Your task to perform on an android device: Go to Reddit.com Image 0: 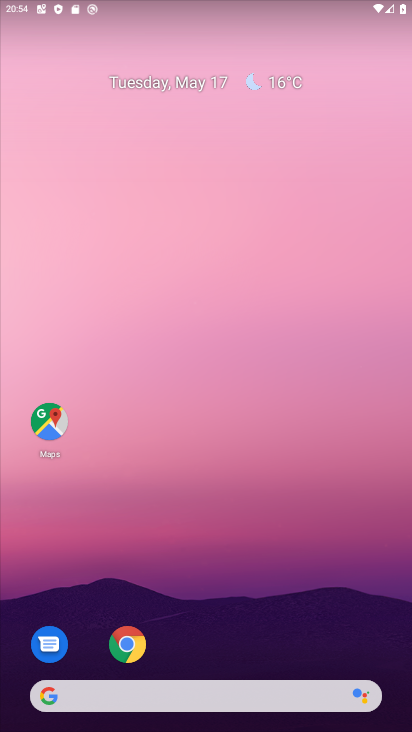
Step 0: click (116, 648)
Your task to perform on an android device: Go to Reddit.com Image 1: 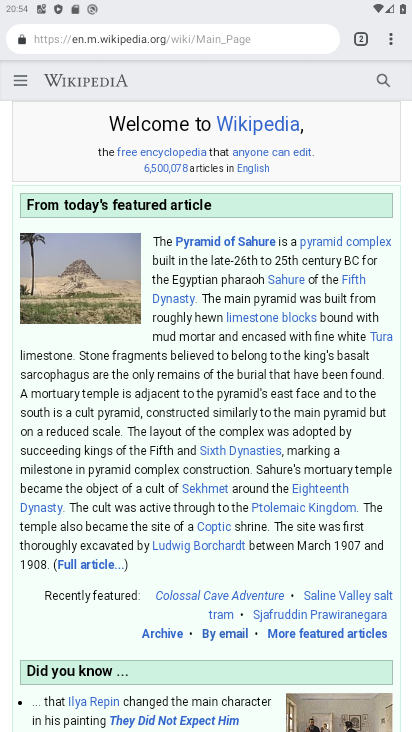
Step 1: click (368, 26)
Your task to perform on an android device: Go to Reddit.com Image 2: 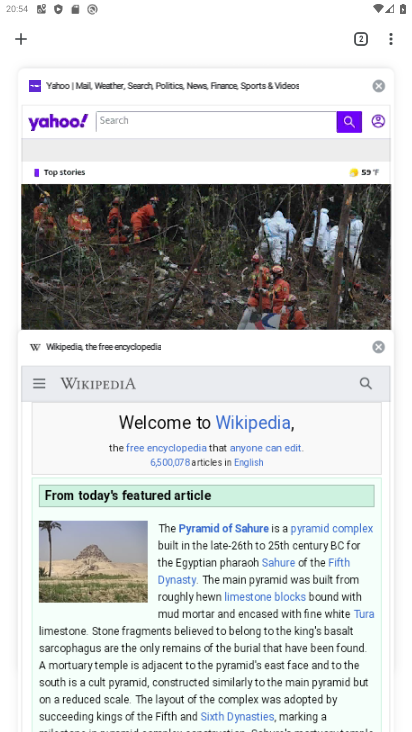
Step 2: click (19, 37)
Your task to perform on an android device: Go to Reddit.com Image 3: 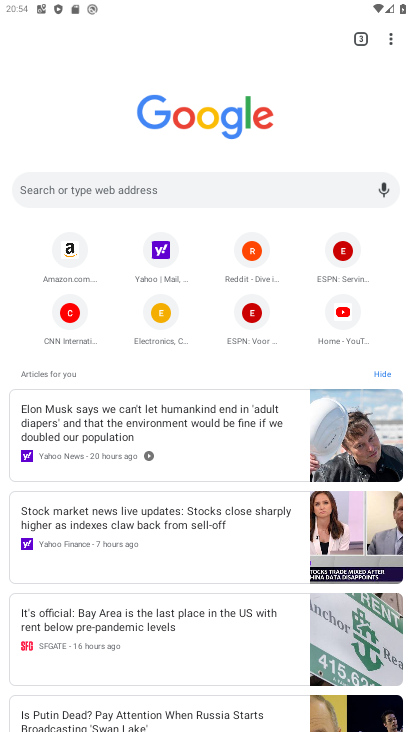
Step 3: click (253, 258)
Your task to perform on an android device: Go to Reddit.com Image 4: 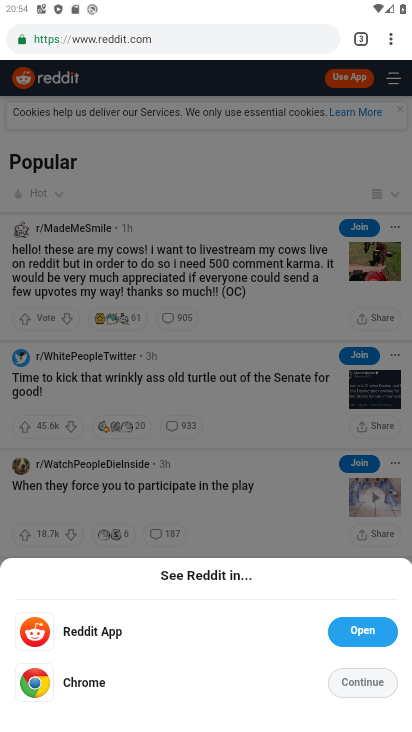
Step 4: task complete